Your task to perform on an android device: manage bookmarks in the chrome app Image 0: 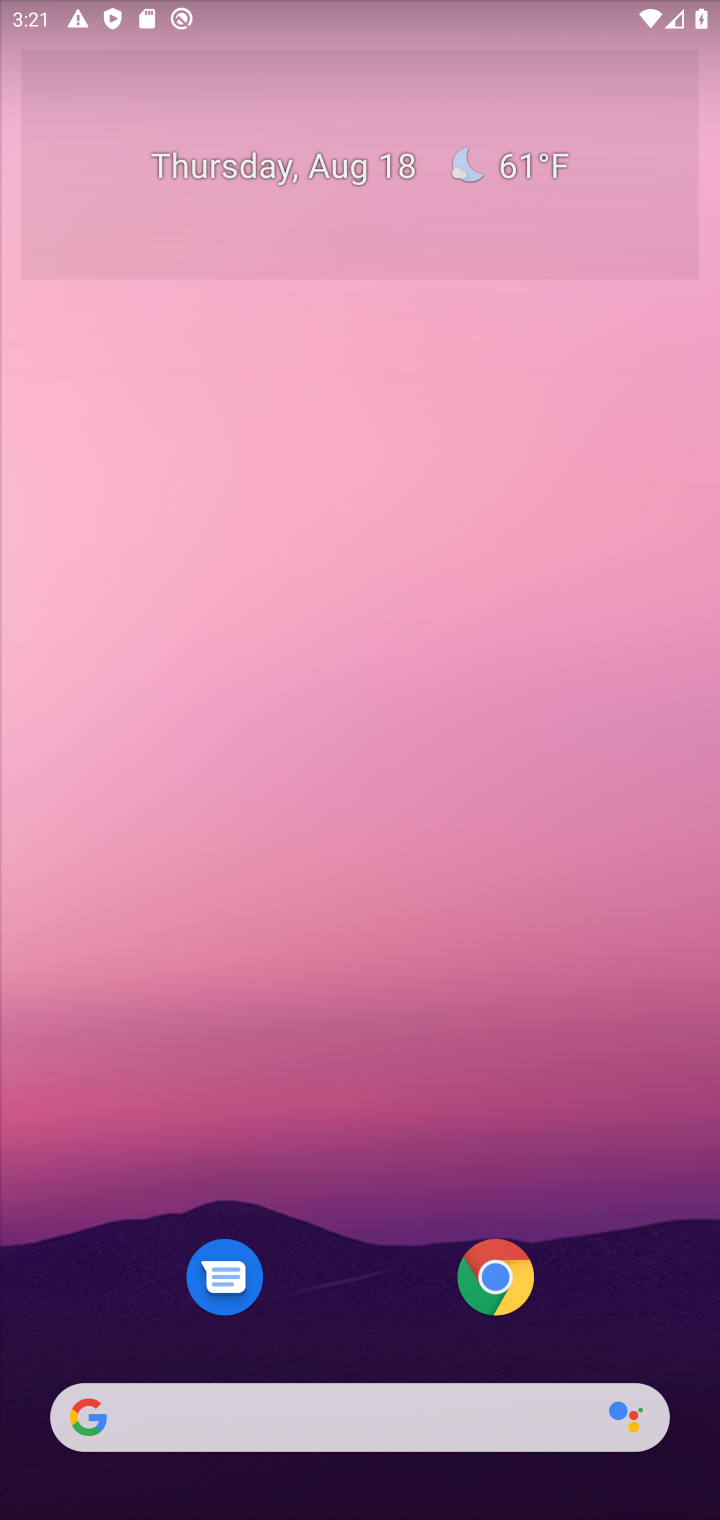
Step 0: drag from (341, 1128) to (262, 66)
Your task to perform on an android device: manage bookmarks in the chrome app Image 1: 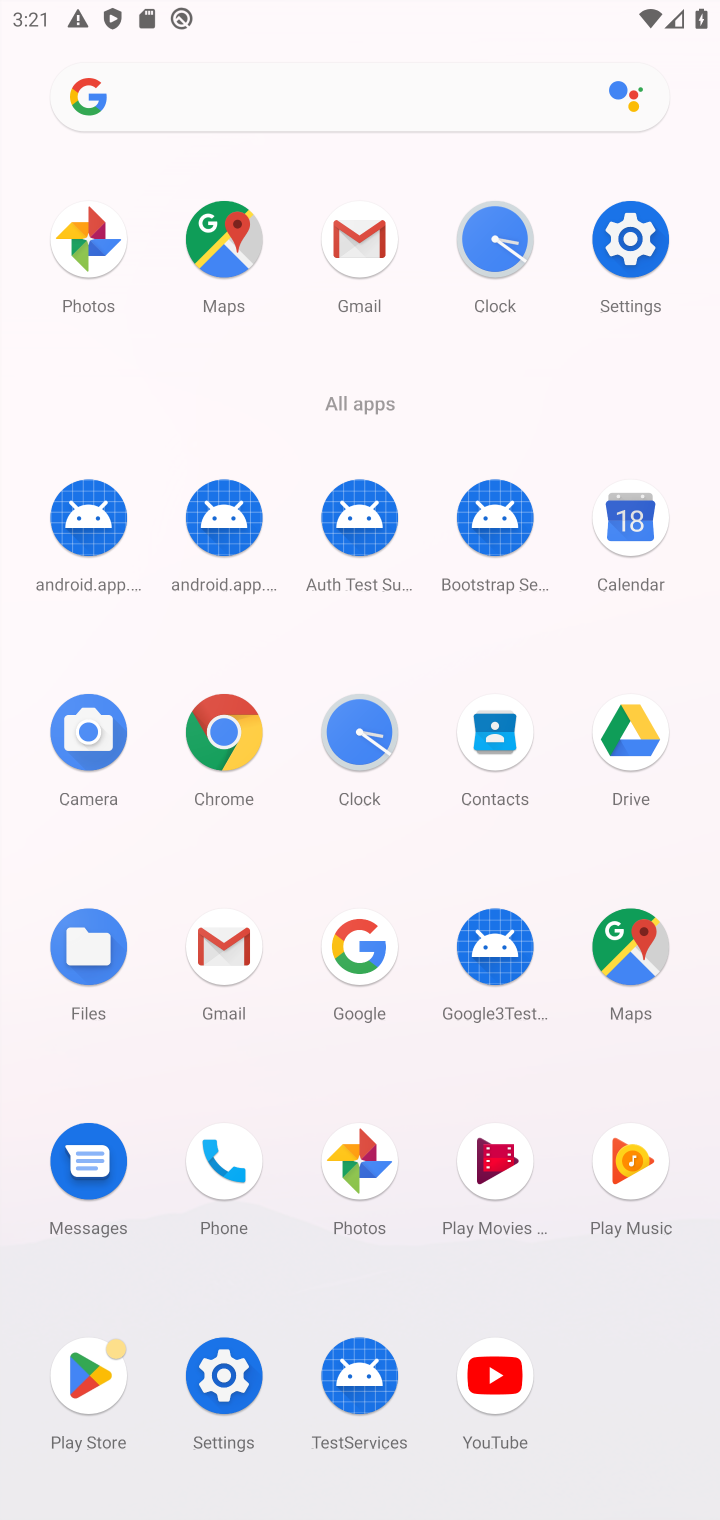
Step 1: click (640, 235)
Your task to perform on an android device: manage bookmarks in the chrome app Image 2: 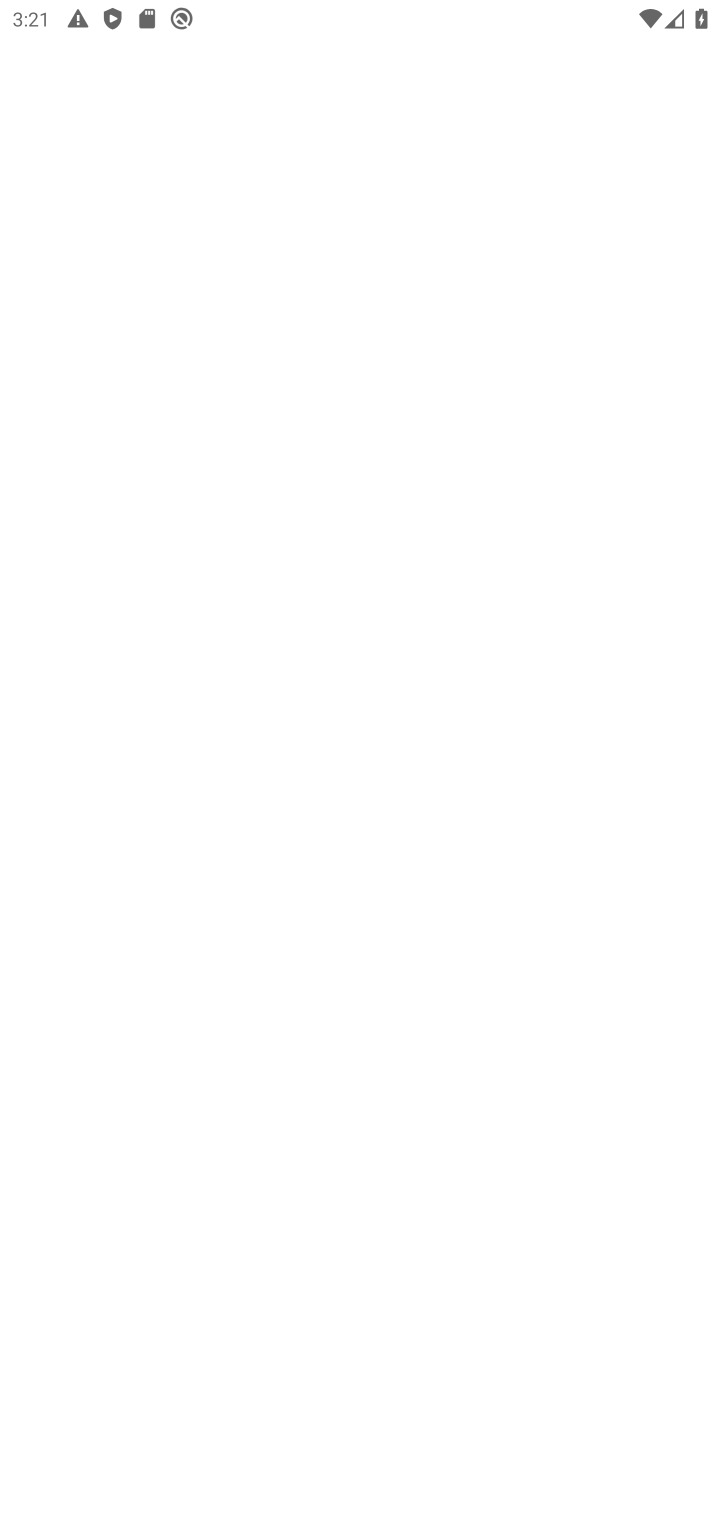
Step 2: task complete